Your task to perform on an android device: Show me popular games on the Play Store Image 0: 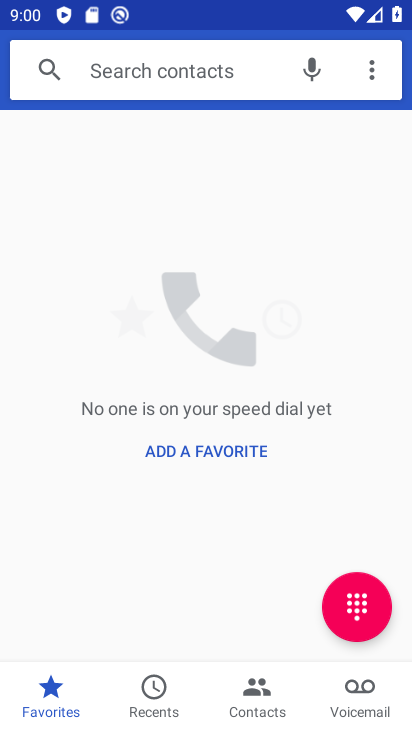
Step 0: press home button
Your task to perform on an android device: Show me popular games on the Play Store Image 1: 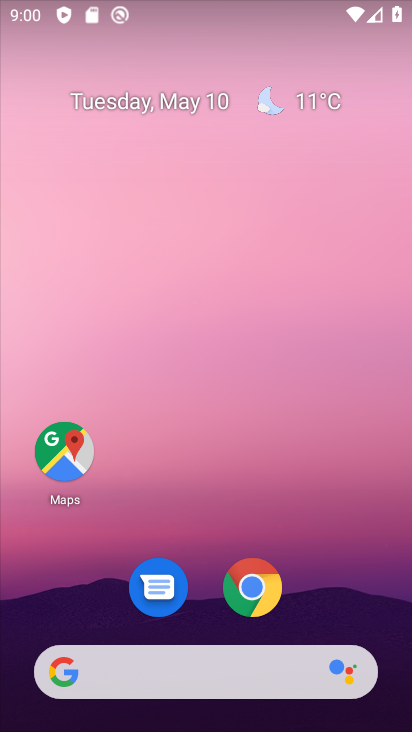
Step 1: drag from (190, 614) to (131, 34)
Your task to perform on an android device: Show me popular games on the Play Store Image 2: 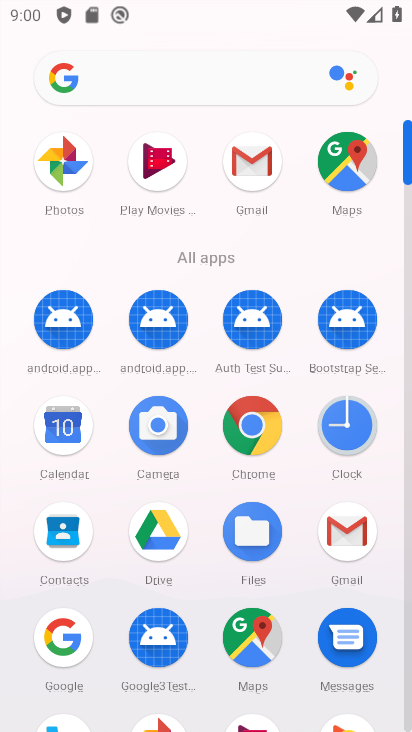
Step 2: drag from (213, 583) to (234, 129)
Your task to perform on an android device: Show me popular games on the Play Store Image 3: 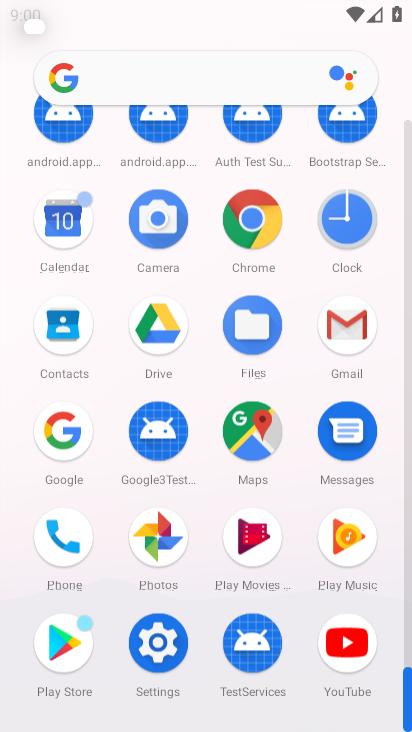
Step 3: click (234, 129)
Your task to perform on an android device: Show me popular games on the Play Store Image 4: 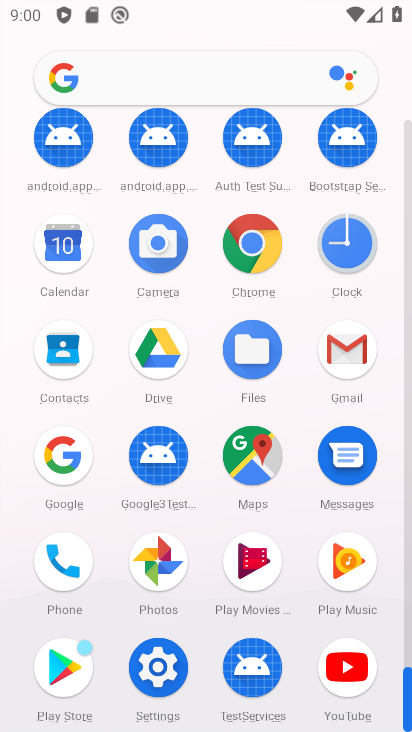
Step 4: click (49, 673)
Your task to perform on an android device: Show me popular games on the Play Store Image 5: 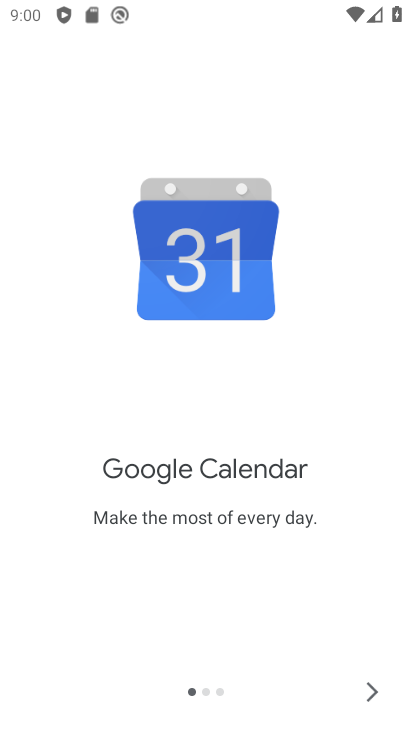
Step 5: click (377, 693)
Your task to perform on an android device: Show me popular games on the Play Store Image 6: 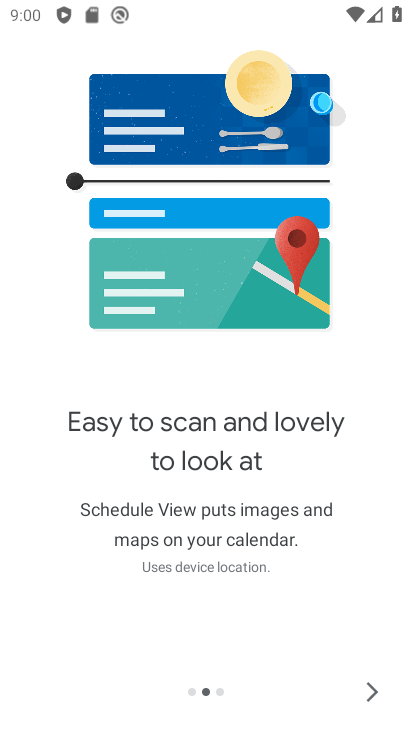
Step 6: click (377, 693)
Your task to perform on an android device: Show me popular games on the Play Store Image 7: 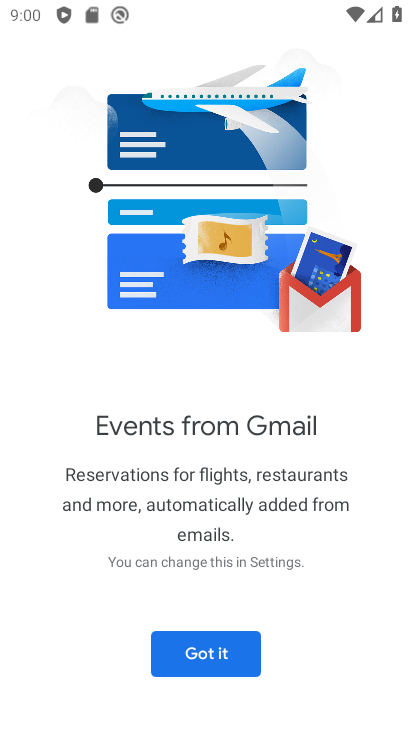
Step 7: click (226, 655)
Your task to perform on an android device: Show me popular games on the Play Store Image 8: 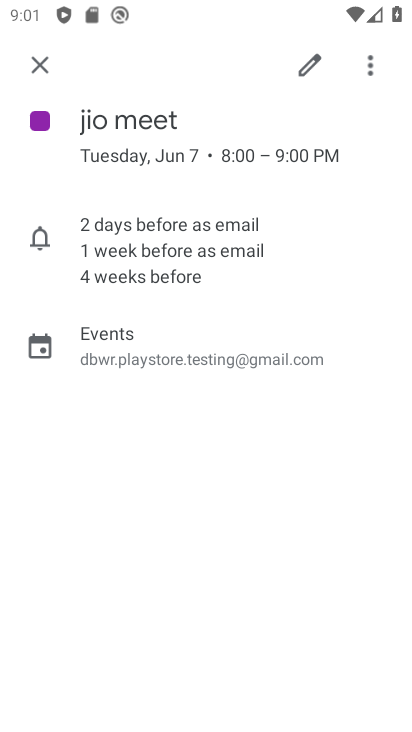
Step 8: click (51, 88)
Your task to perform on an android device: Show me popular games on the Play Store Image 9: 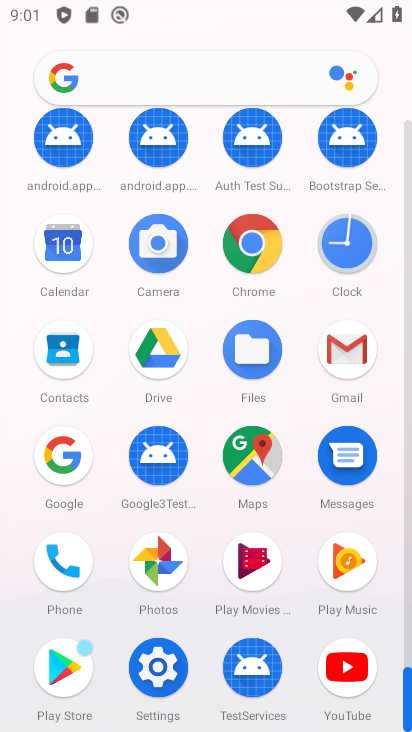
Step 9: click (61, 649)
Your task to perform on an android device: Show me popular games on the Play Store Image 10: 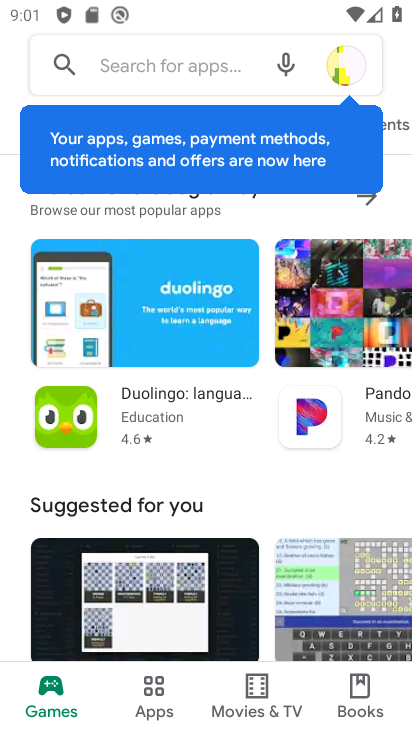
Step 10: click (272, 492)
Your task to perform on an android device: Show me popular games on the Play Store Image 11: 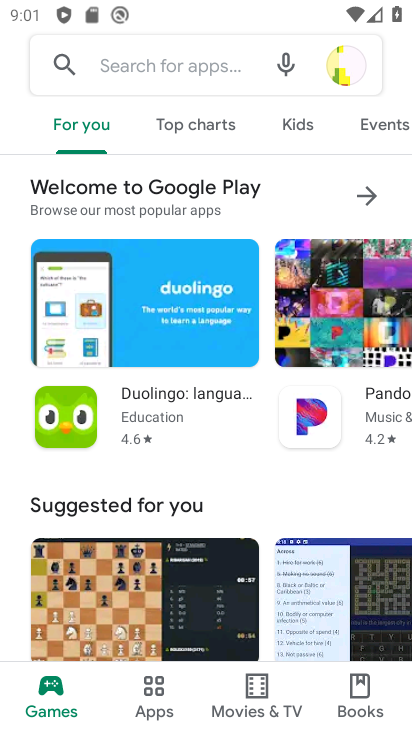
Step 11: click (206, 126)
Your task to perform on an android device: Show me popular games on the Play Store Image 12: 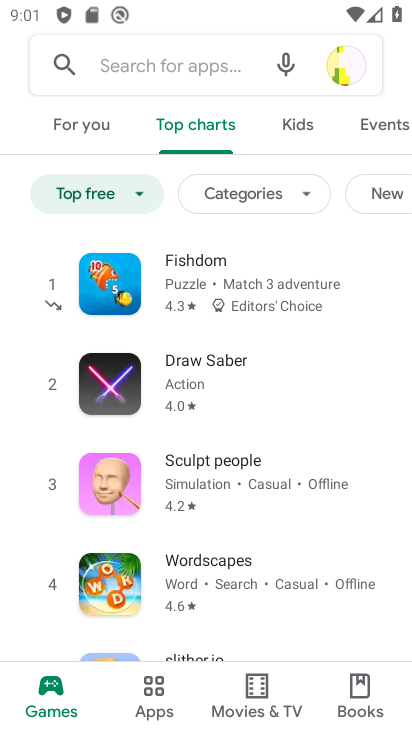
Step 12: task complete